Your task to perform on an android device: check data usage Image 0: 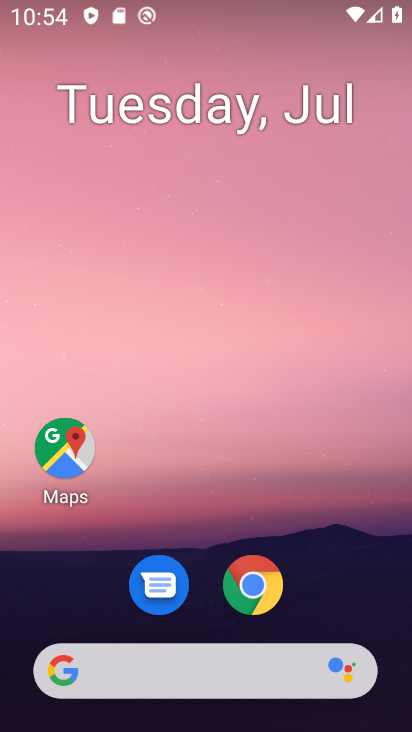
Step 0: drag from (208, 663) to (280, 150)
Your task to perform on an android device: check data usage Image 1: 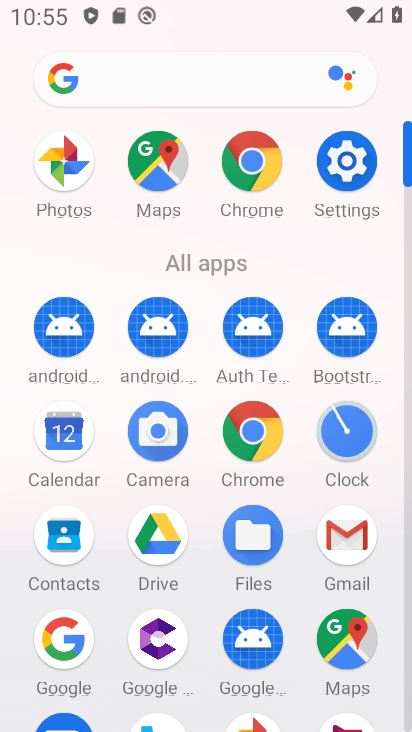
Step 1: click (328, 171)
Your task to perform on an android device: check data usage Image 2: 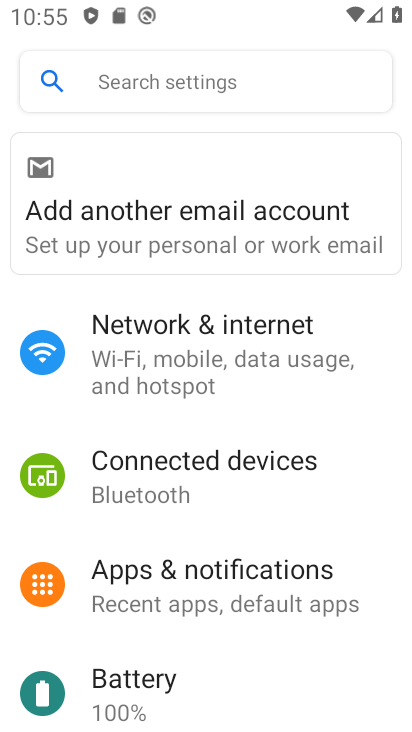
Step 2: click (230, 364)
Your task to perform on an android device: check data usage Image 3: 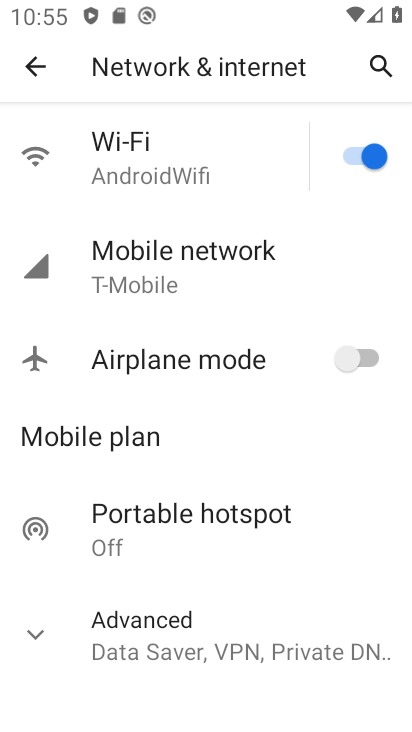
Step 3: click (143, 255)
Your task to perform on an android device: check data usage Image 4: 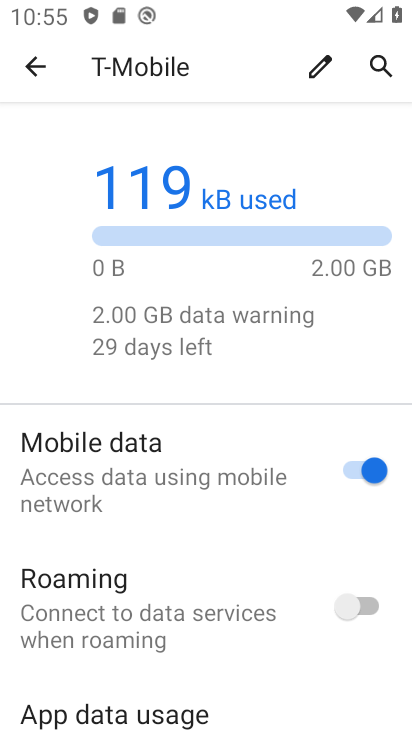
Step 4: task complete